Your task to perform on an android device: Open Reddit.com Image 0: 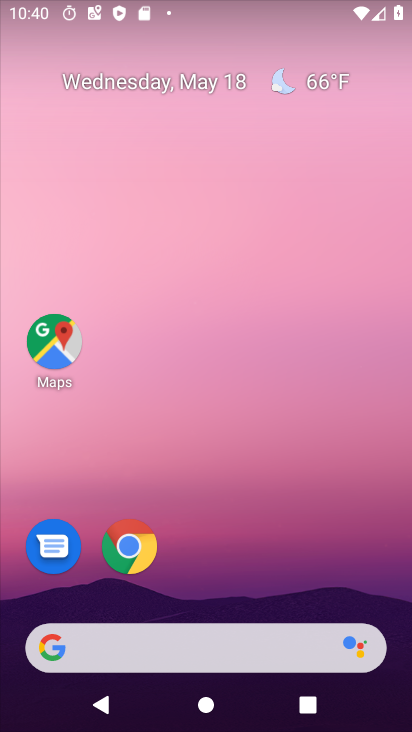
Step 0: click (174, 653)
Your task to perform on an android device: Open Reddit.com Image 1: 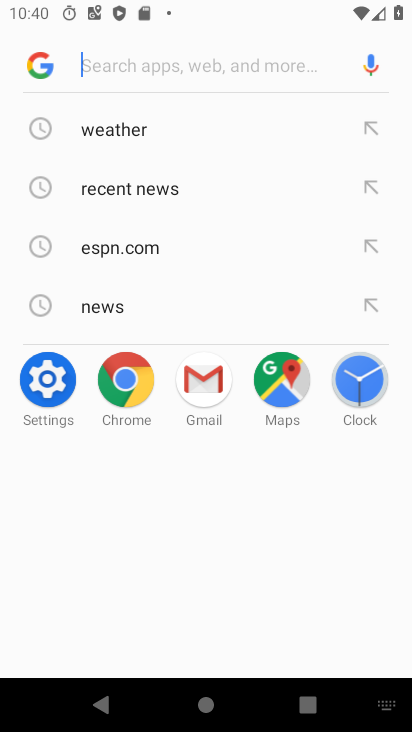
Step 1: type "reddit"
Your task to perform on an android device: Open Reddit.com Image 2: 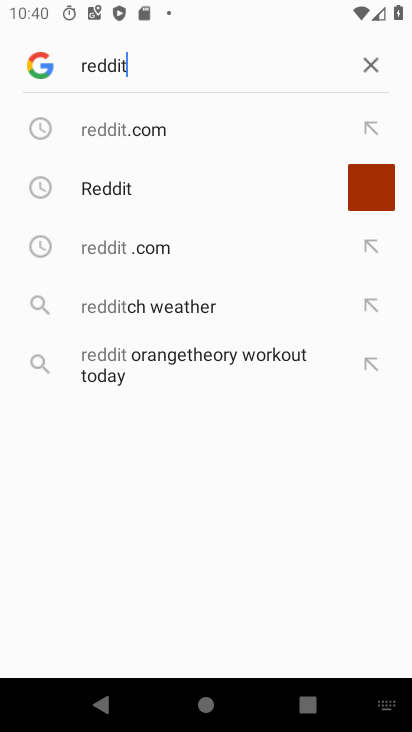
Step 2: type ""
Your task to perform on an android device: Open Reddit.com Image 3: 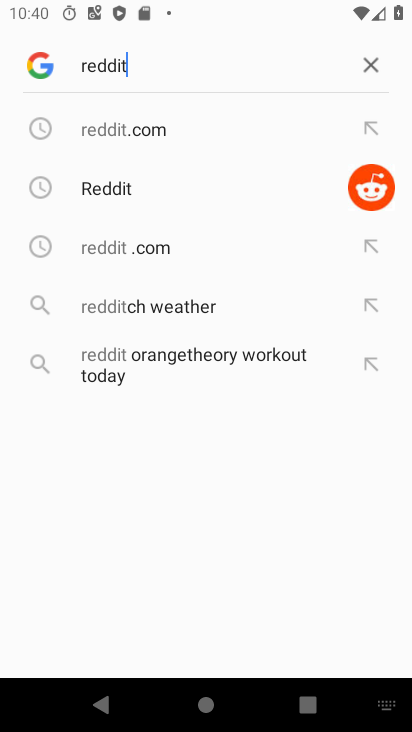
Step 3: click (361, 190)
Your task to perform on an android device: Open Reddit.com Image 4: 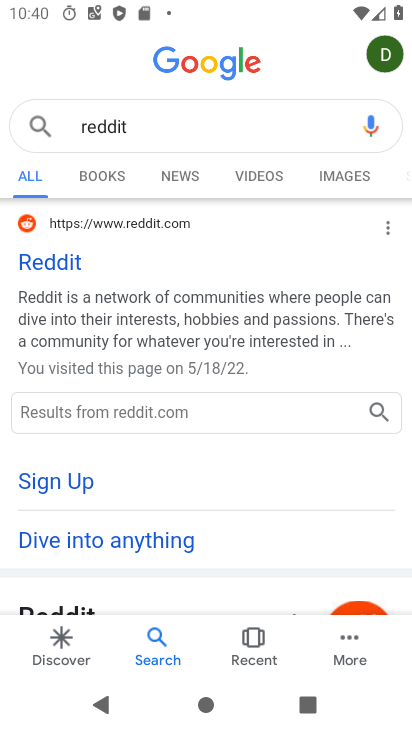
Step 4: click (60, 259)
Your task to perform on an android device: Open Reddit.com Image 5: 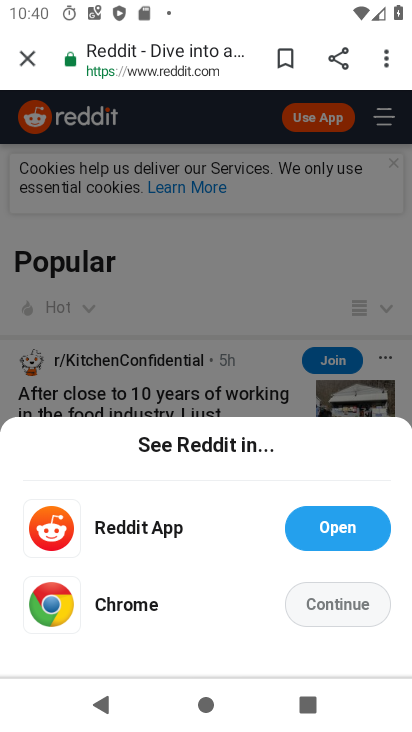
Step 5: task complete